Your task to perform on an android device: Open internet settings Image 0: 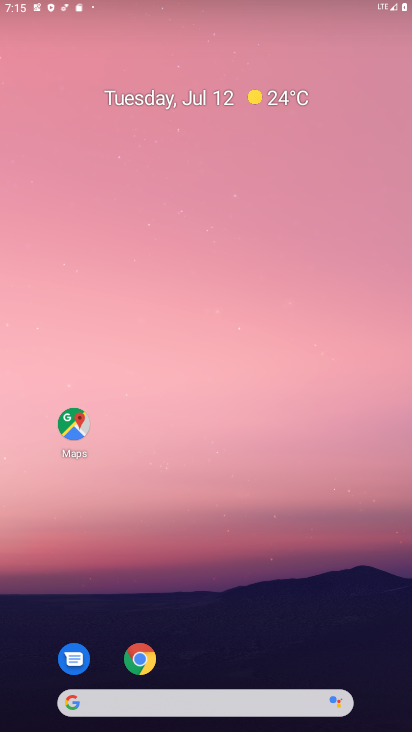
Step 0: drag from (371, 664) to (185, 44)
Your task to perform on an android device: Open internet settings Image 1: 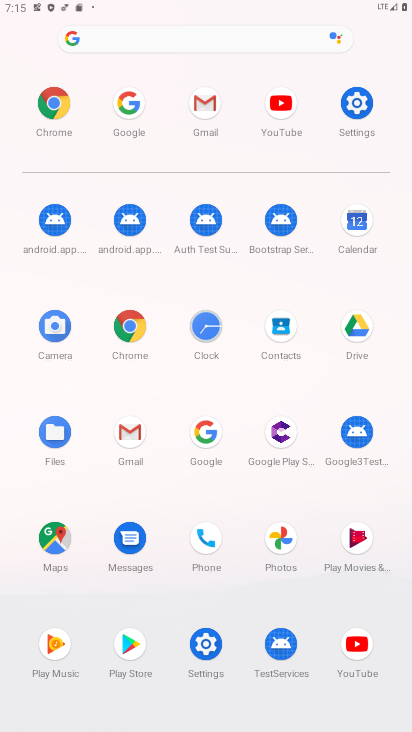
Step 1: click (369, 106)
Your task to perform on an android device: Open internet settings Image 2: 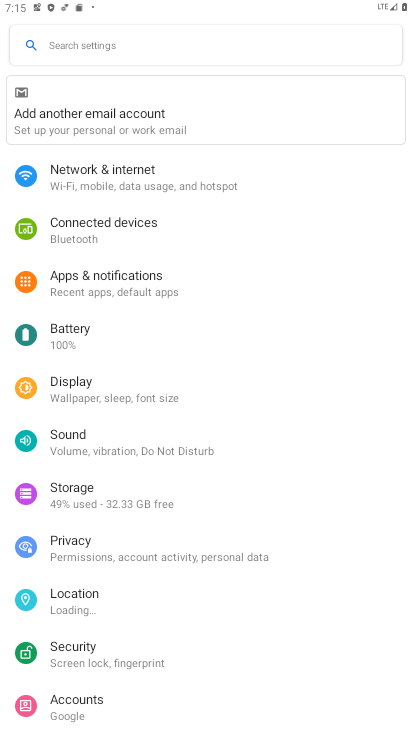
Step 2: click (119, 175)
Your task to perform on an android device: Open internet settings Image 3: 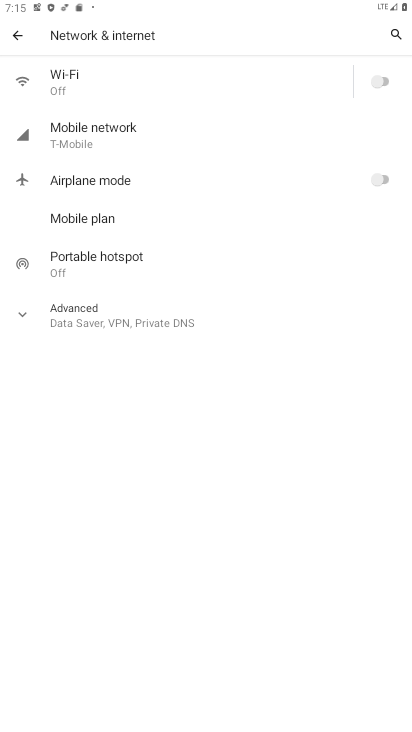
Step 3: task complete